Your task to perform on an android device: Search for a 4k TV on Best Buy Image 0: 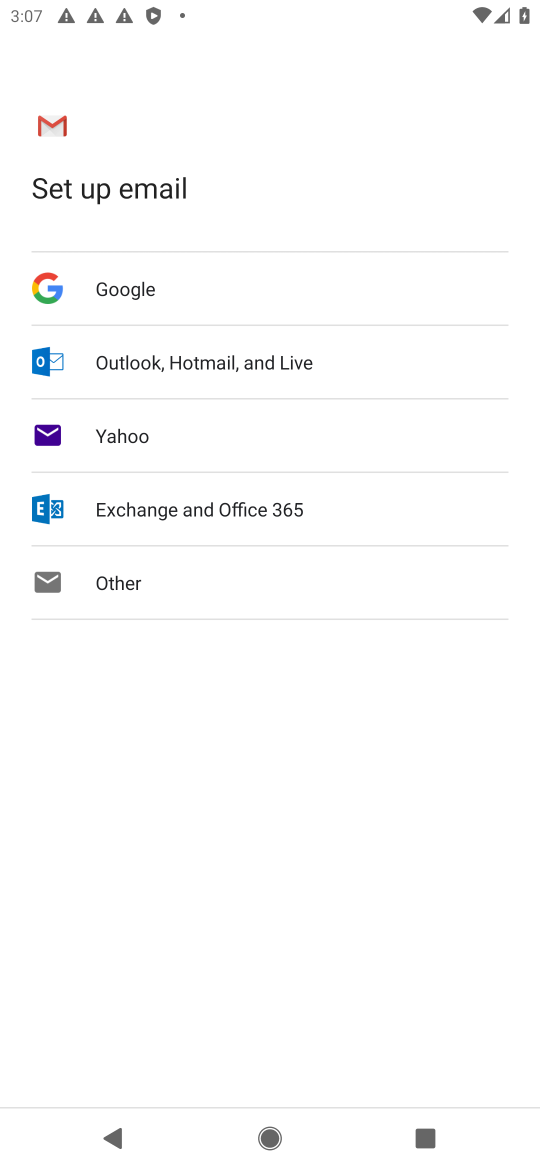
Step 0: press home button
Your task to perform on an android device: Search for a 4k TV on Best Buy Image 1: 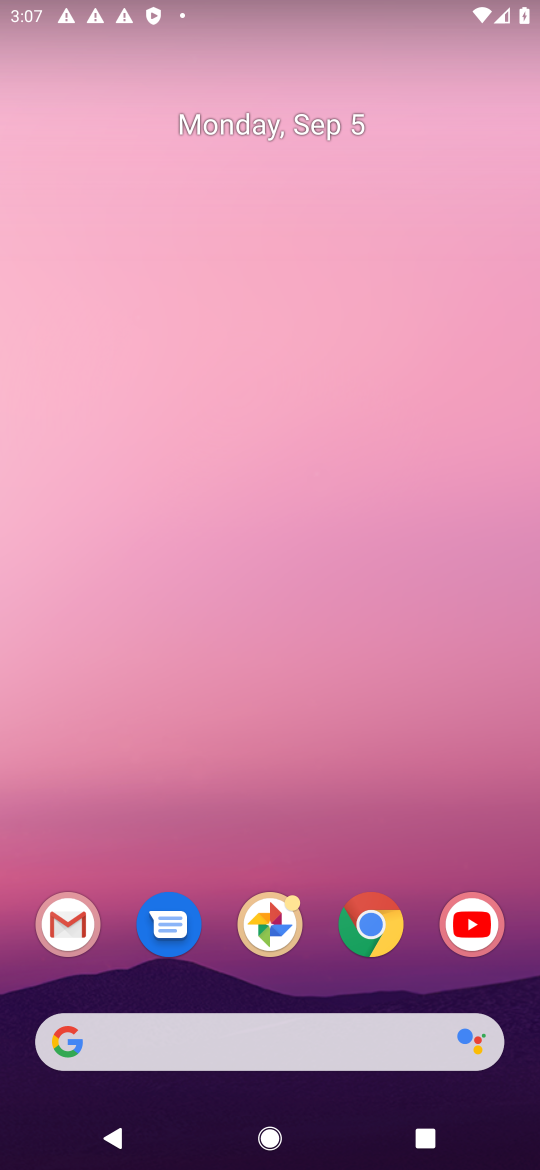
Step 1: click (362, 935)
Your task to perform on an android device: Search for a 4k TV on Best Buy Image 2: 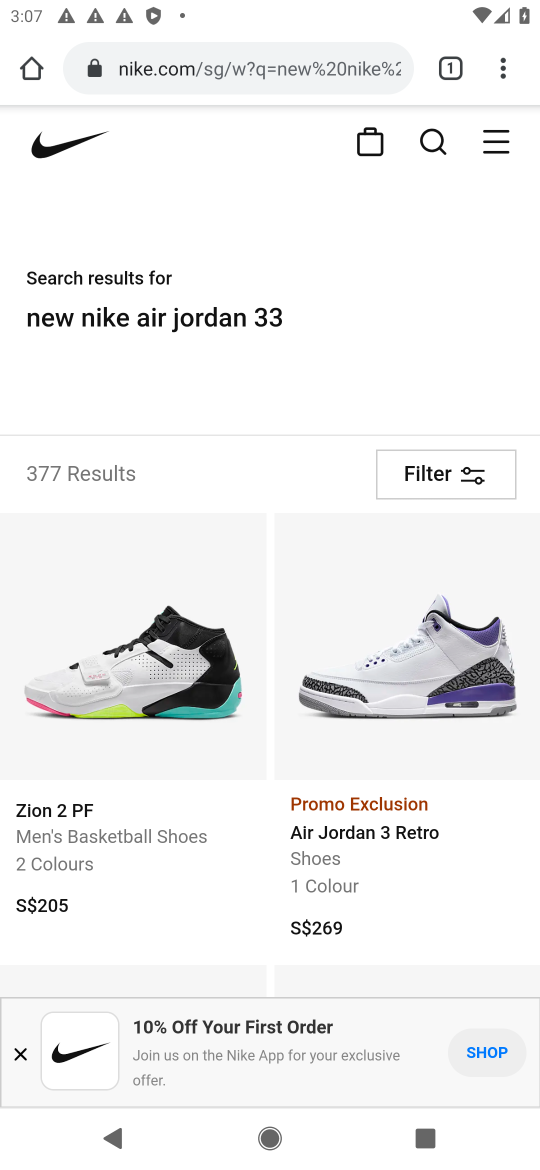
Step 2: click (207, 67)
Your task to perform on an android device: Search for a 4k TV on Best Buy Image 3: 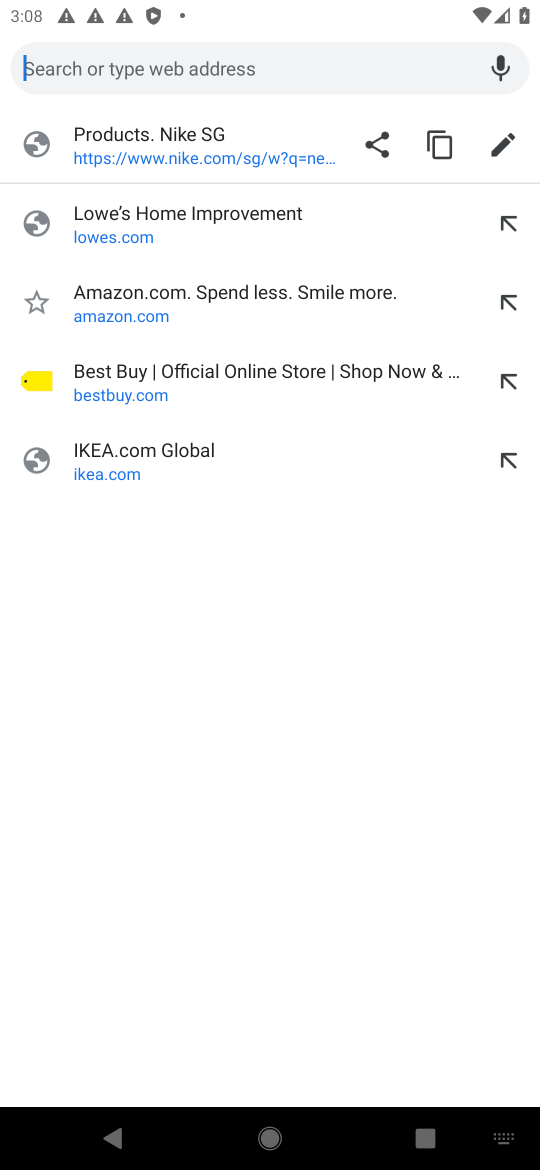
Step 3: click (186, 377)
Your task to perform on an android device: Search for a 4k TV on Best Buy Image 4: 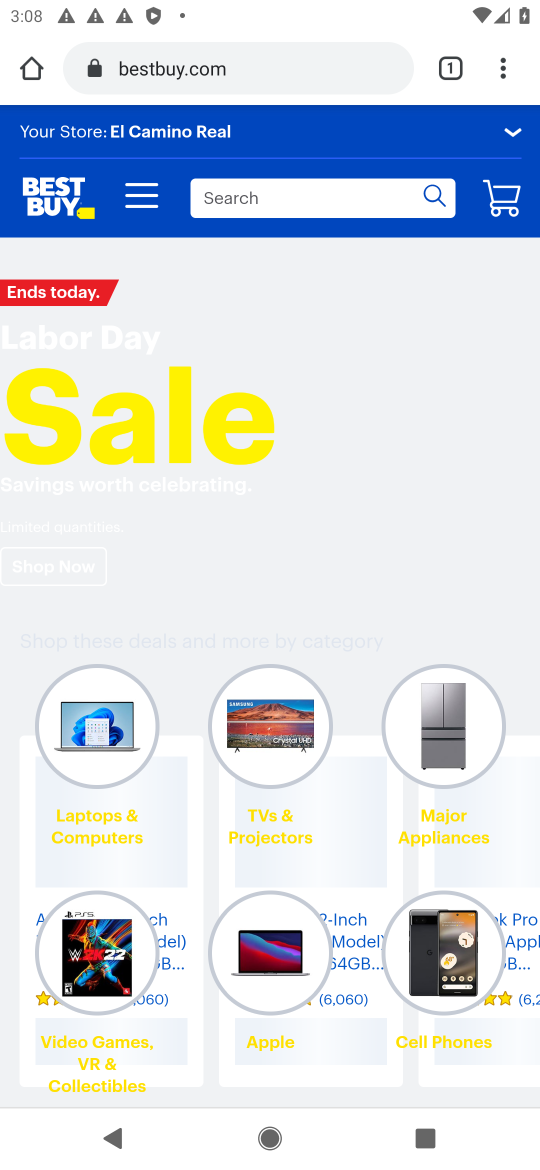
Step 4: click (256, 200)
Your task to perform on an android device: Search for a 4k TV on Best Buy Image 5: 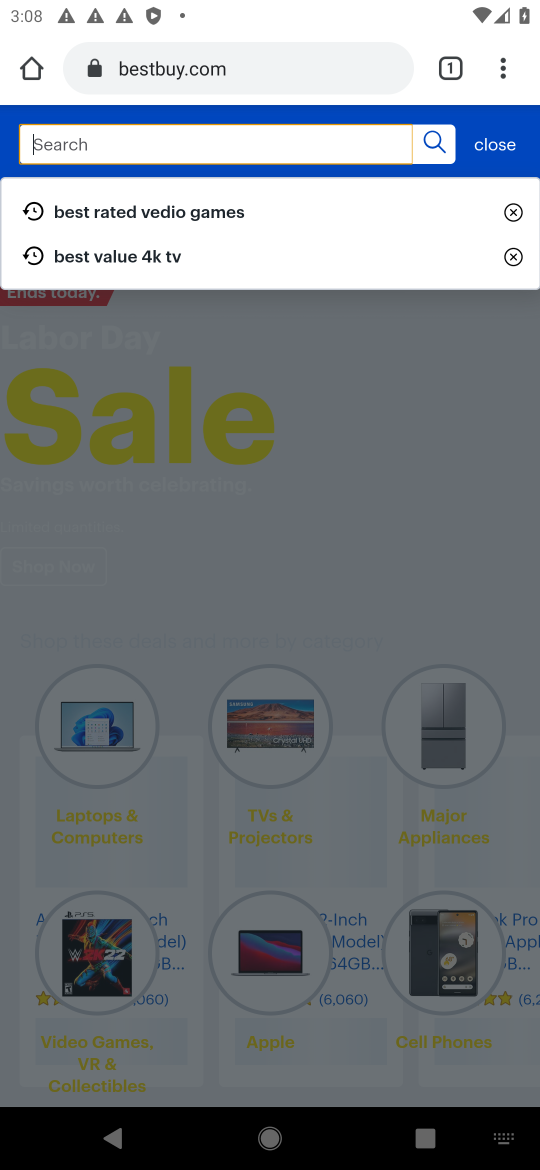
Step 5: type "4k TV"
Your task to perform on an android device: Search for a 4k TV on Best Buy Image 6: 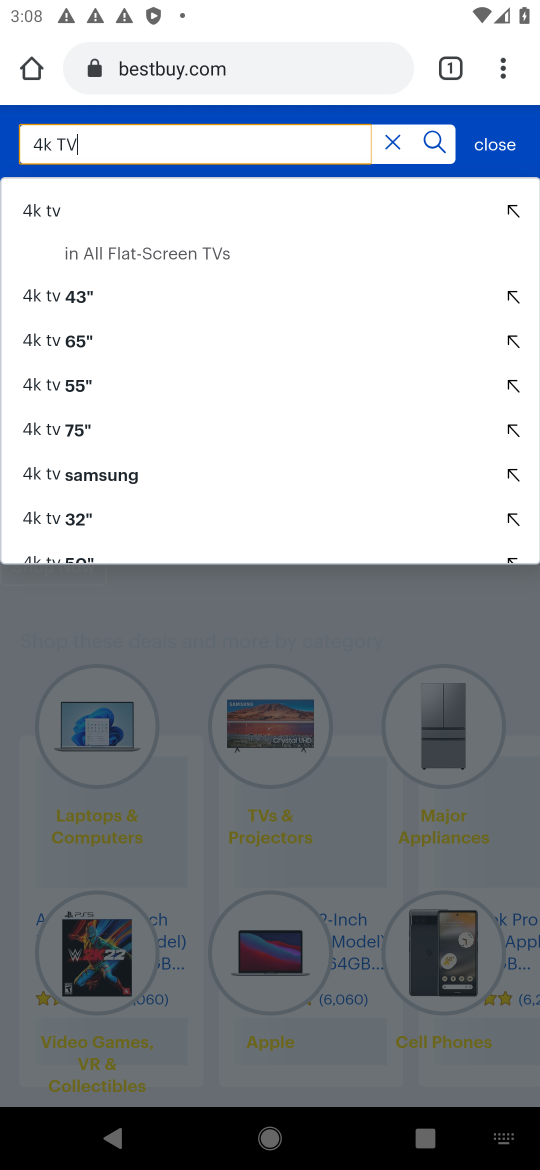
Step 6: click (47, 217)
Your task to perform on an android device: Search for a 4k TV on Best Buy Image 7: 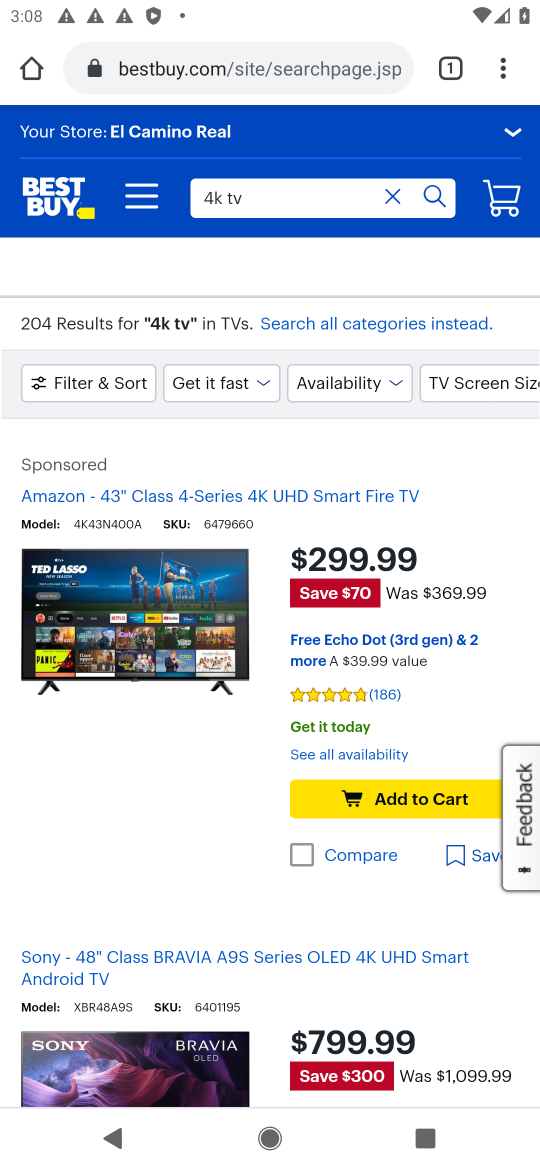
Step 7: click (512, 251)
Your task to perform on an android device: Search for a 4k TV on Best Buy Image 8: 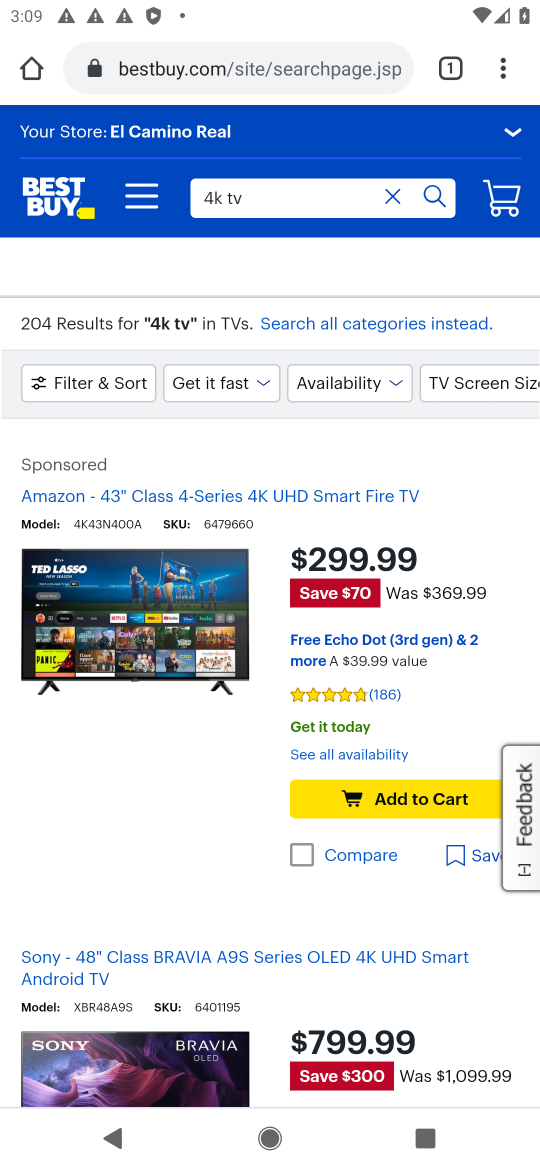
Step 8: task complete